Your task to perform on an android device: remove spam from my inbox in the gmail app Image 0: 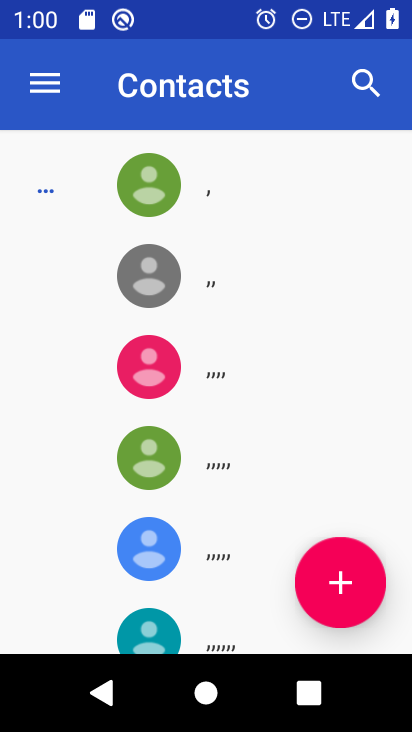
Step 0: press home button
Your task to perform on an android device: remove spam from my inbox in the gmail app Image 1: 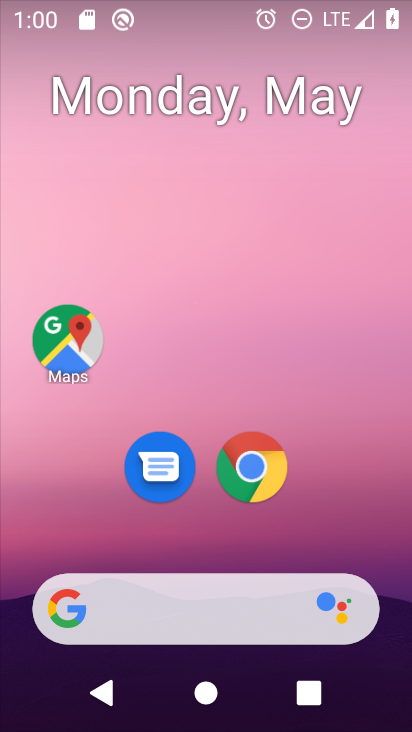
Step 1: drag from (399, 602) to (408, 479)
Your task to perform on an android device: remove spam from my inbox in the gmail app Image 2: 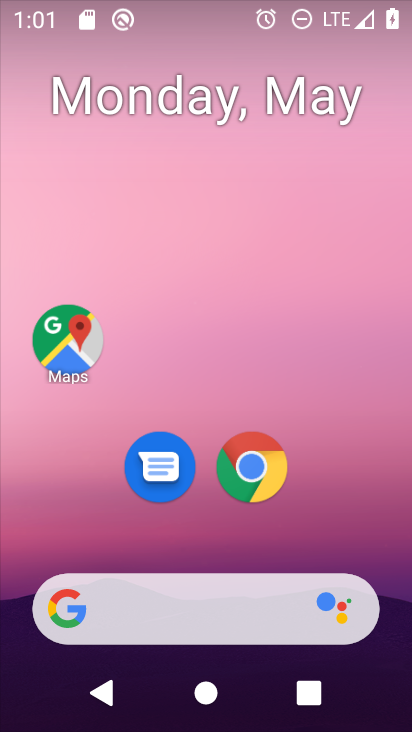
Step 2: drag from (403, 588) to (392, 7)
Your task to perform on an android device: remove spam from my inbox in the gmail app Image 3: 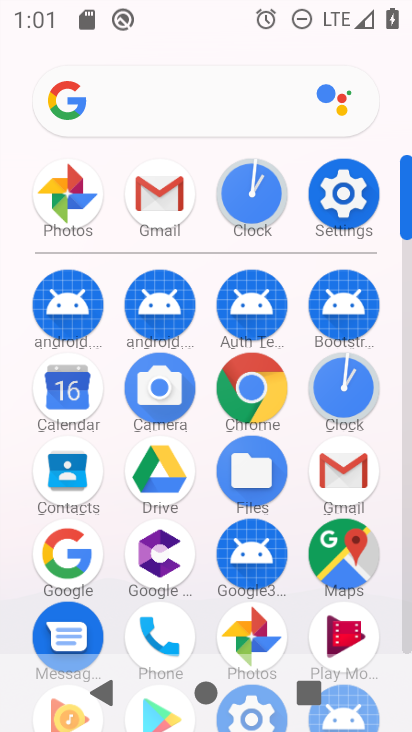
Step 3: click (154, 207)
Your task to perform on an android device: remove spam from my inbox in the gmail app Image 4: 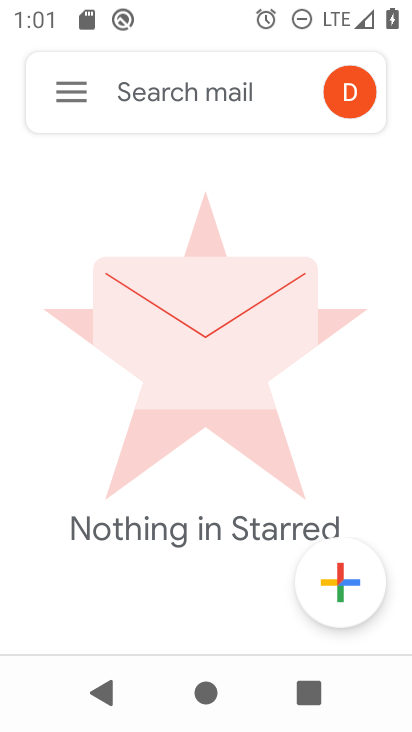
Step 4: click (62, 88)
Your task to perform on an android device: remove spam from my inbox in the gmail app Image 5: 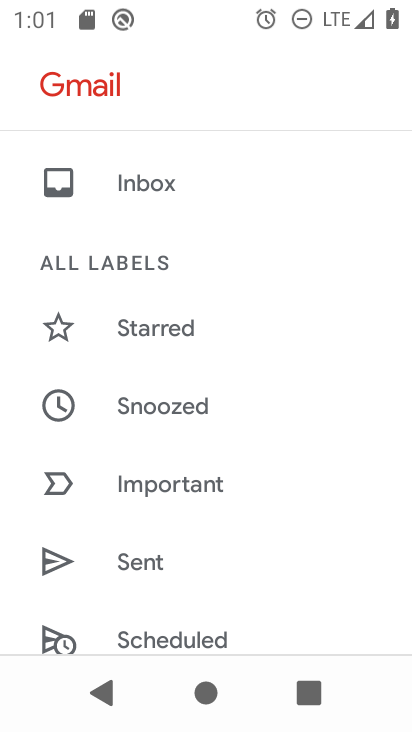
Step 5: click (62, 89)
Your task to perform on an android device: remove spam from my inbox in the gmail app Image 6: 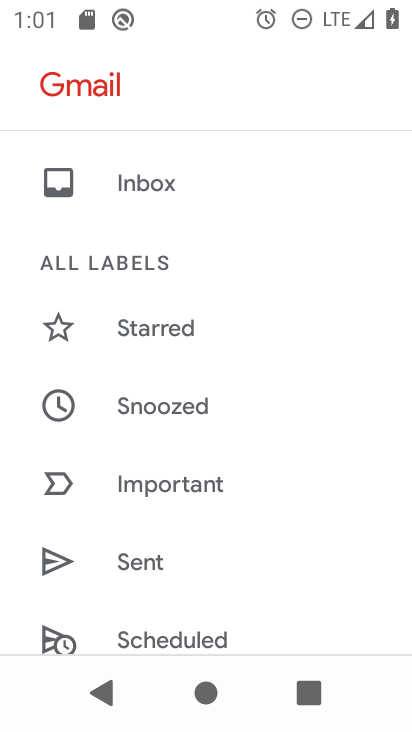
Step 6: drag from (139, 503) to (162, 101)
Your task to perform on an android device: remove spam from my inbox in the gmail app Image 7: 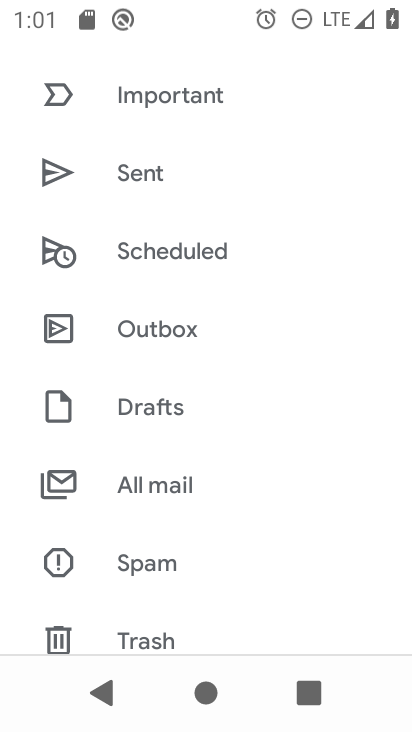
Step 7: drag from (150, 500) to (168, 113)
Your task to perform on an android device: remove spam from my inbox in the gmail app Image 8: 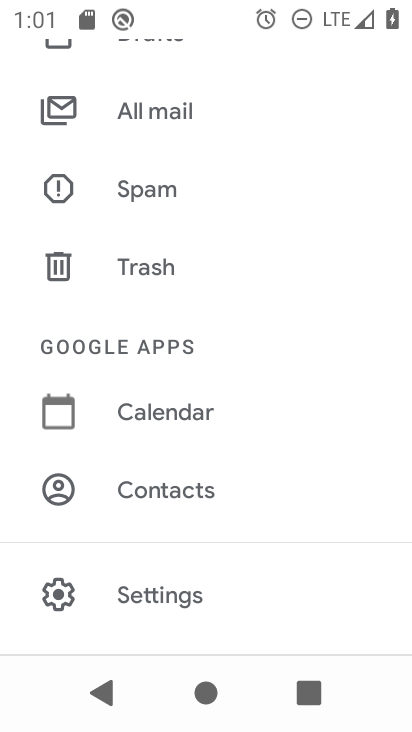
Step 8: click (126, 188)
Your task to perform on an android device: remove spam from my inbox in the gmail app Image 9: 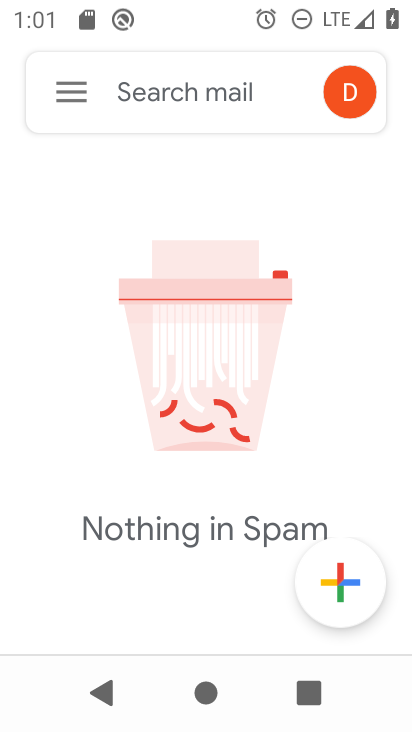
Step 9: task complete